Your task to perform on an android device: clear all cookies in the chrome app Image 0: 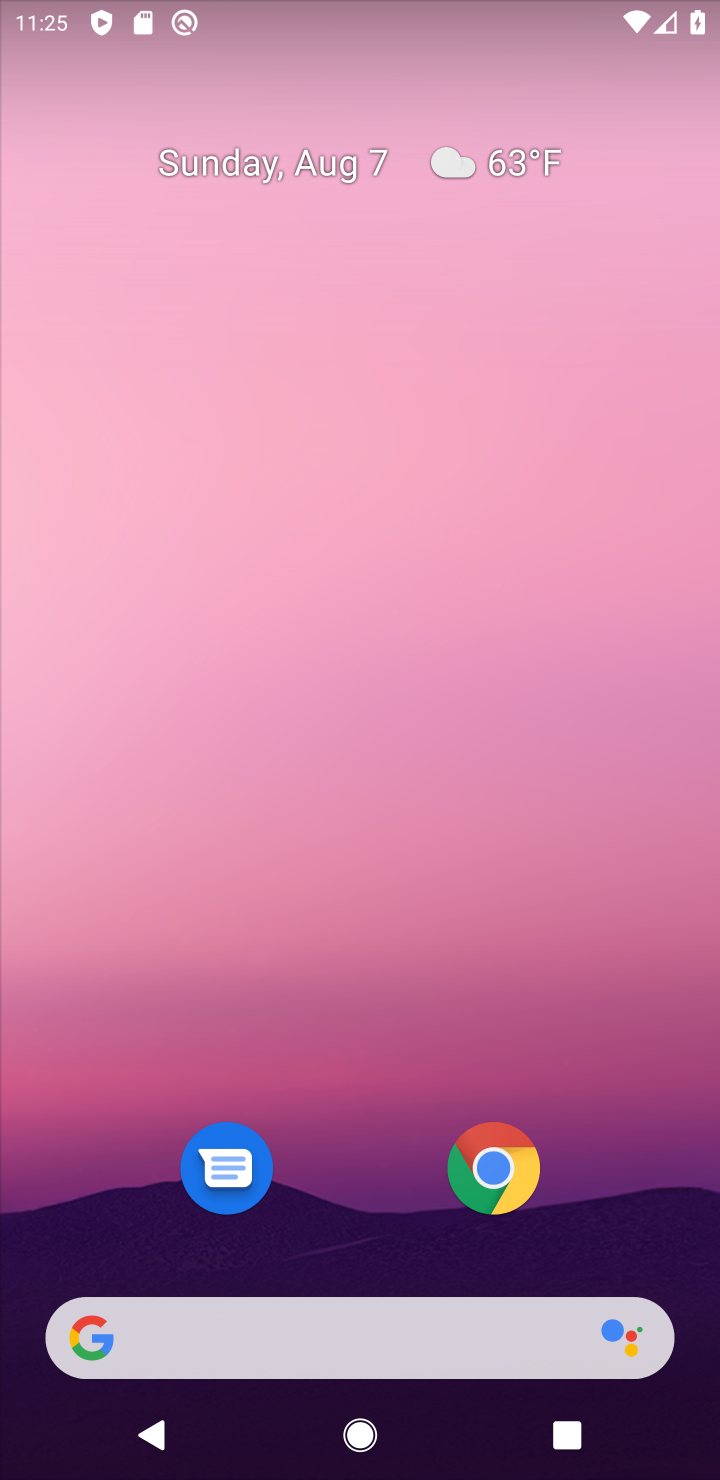
Step 0: click (483, 1176)
Your task to perform on an android device: clear all cookies in the chrome app Image 1: 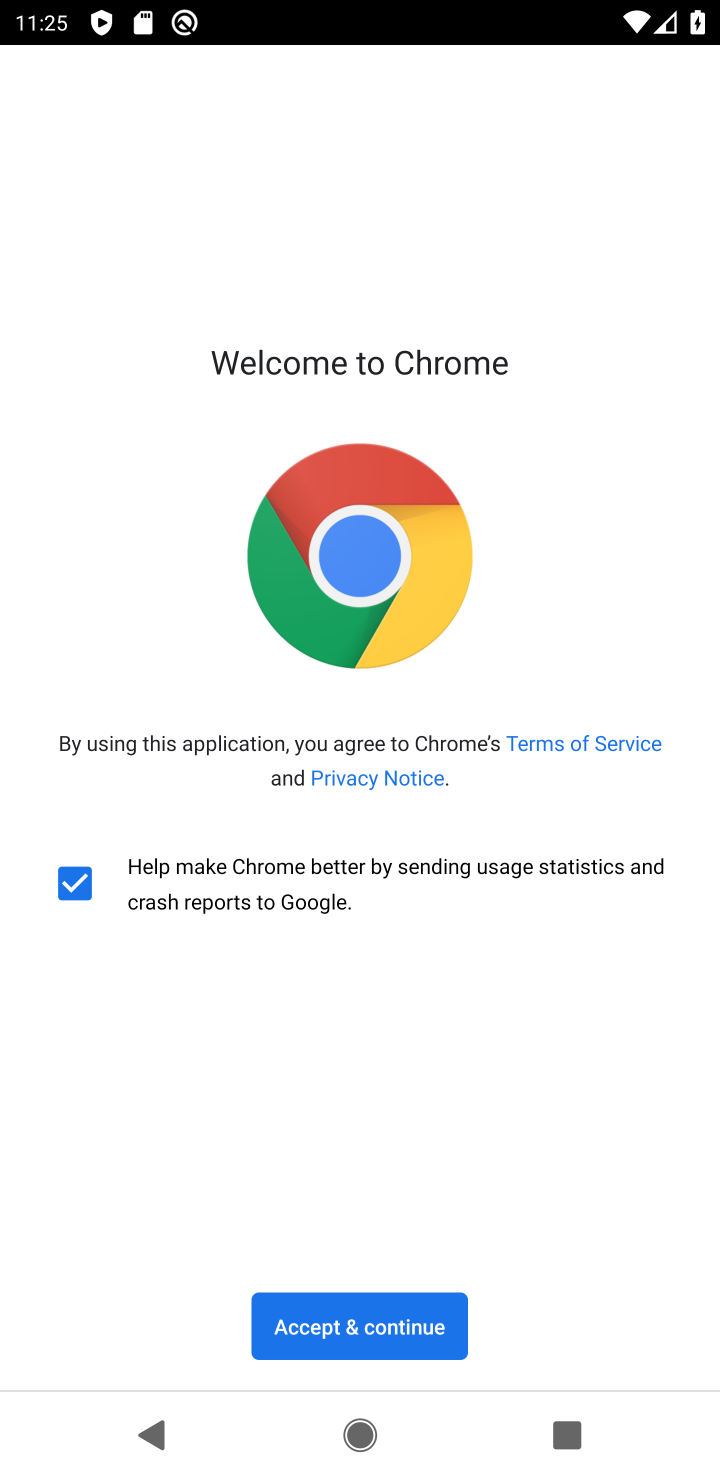
Step 1: click (350, 1317)
Your task to perform on an android device: clear all cookies in the chrome app Image 2: 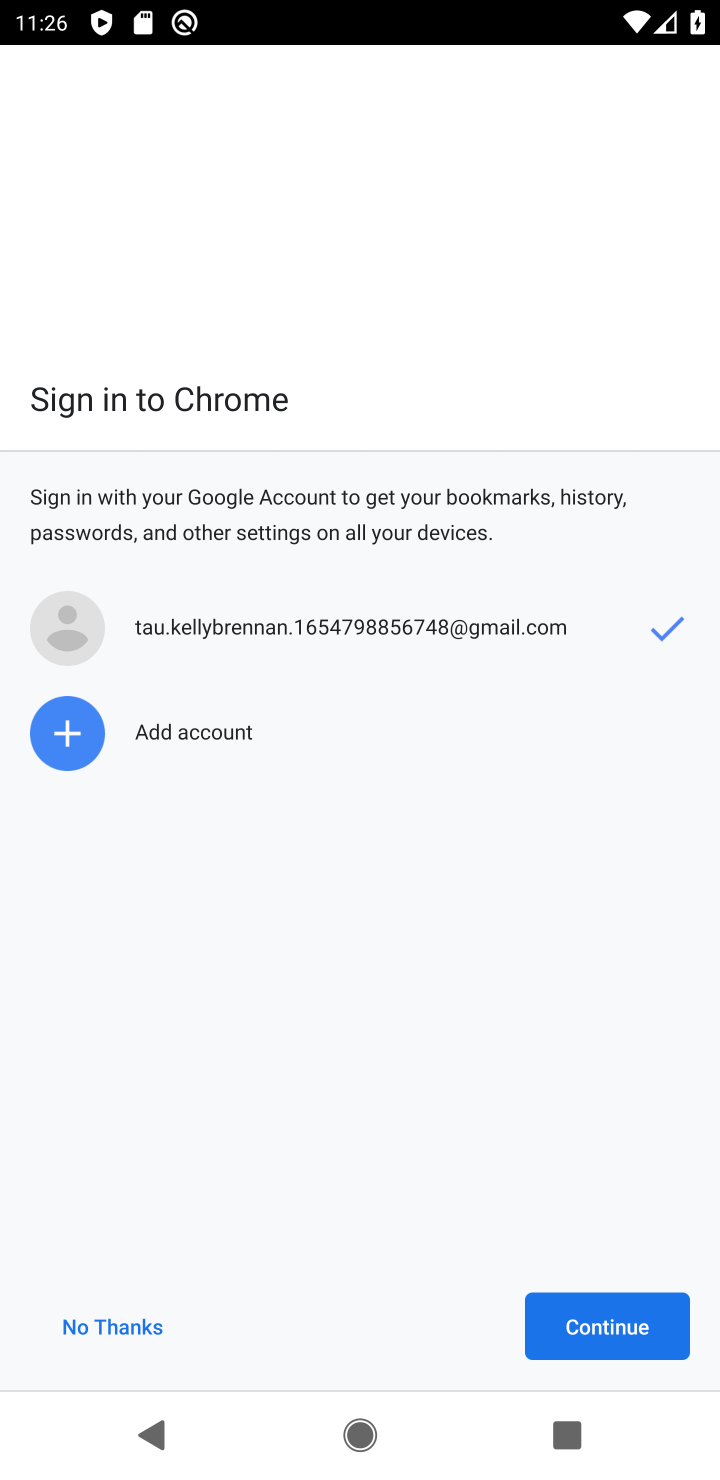
Step 2: click (604, 1335)
Your task to perform on an android device: clear all cookies in the chrome app Image 3: 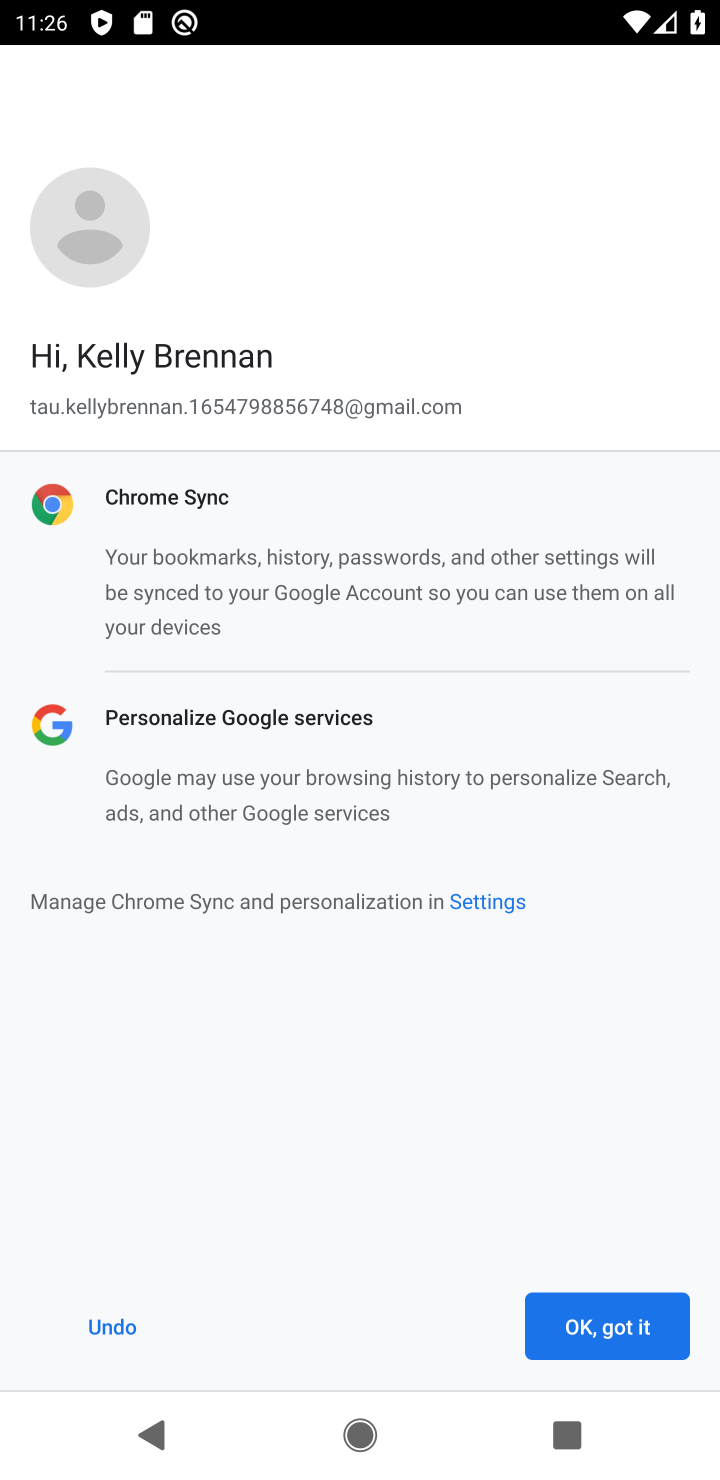
Step 3: click (604, 1335)
Your task to perform on an android device: clear all cookies in the chrome app Image 4: 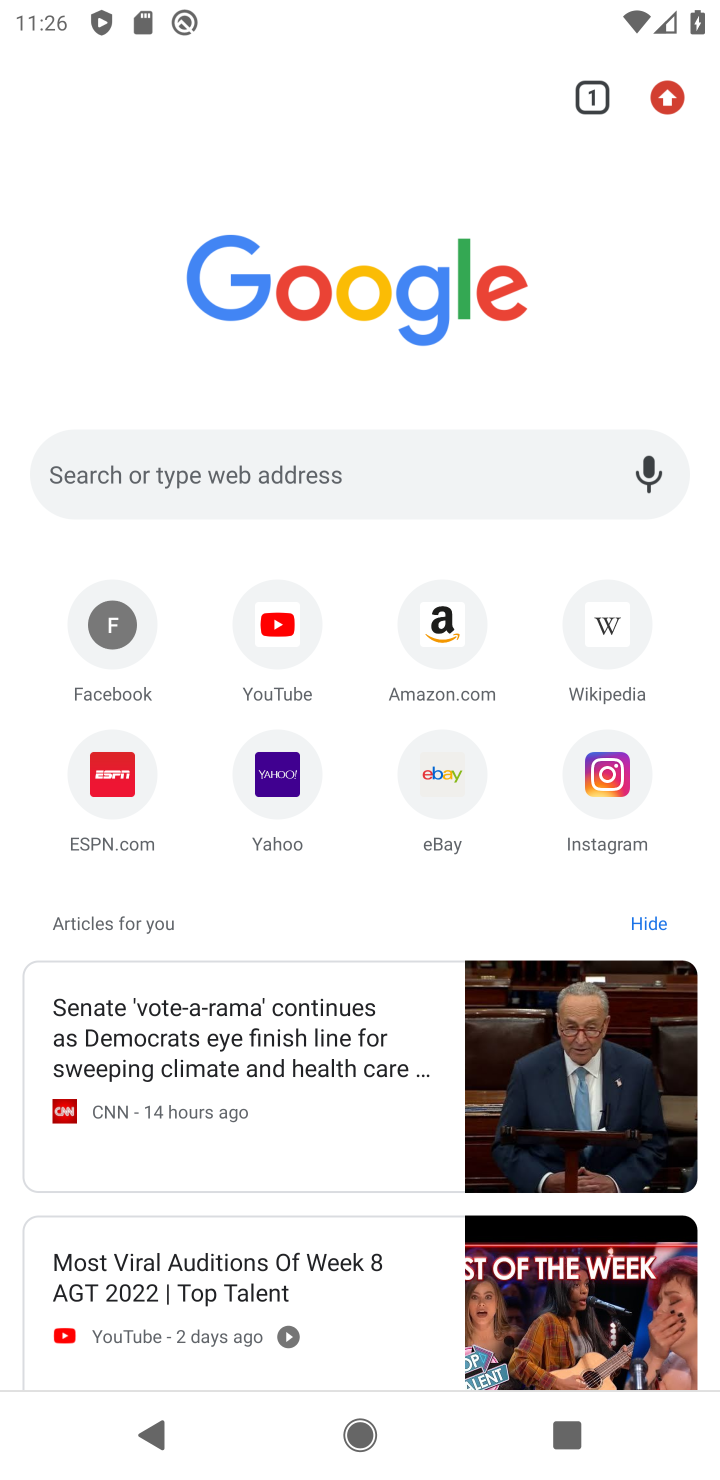
Step 4: drag from (673, 103) to (299, 913)
Your task to perform on an android device: clear all cookies in the chrome app Image 5: 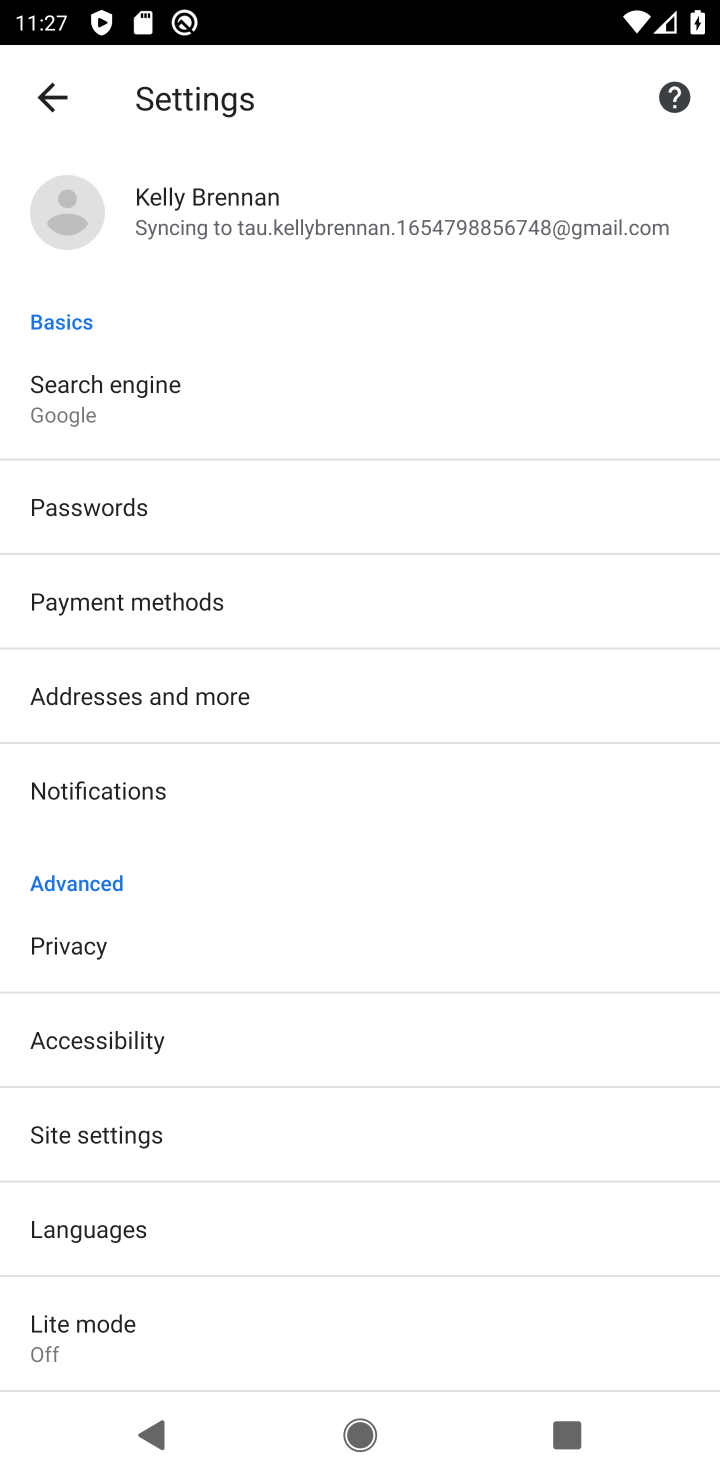
Step 5: drag from (417, 1119) to (539, 17)
Your task to perform on an android device: clear all cookies in the chrome app Image 6: 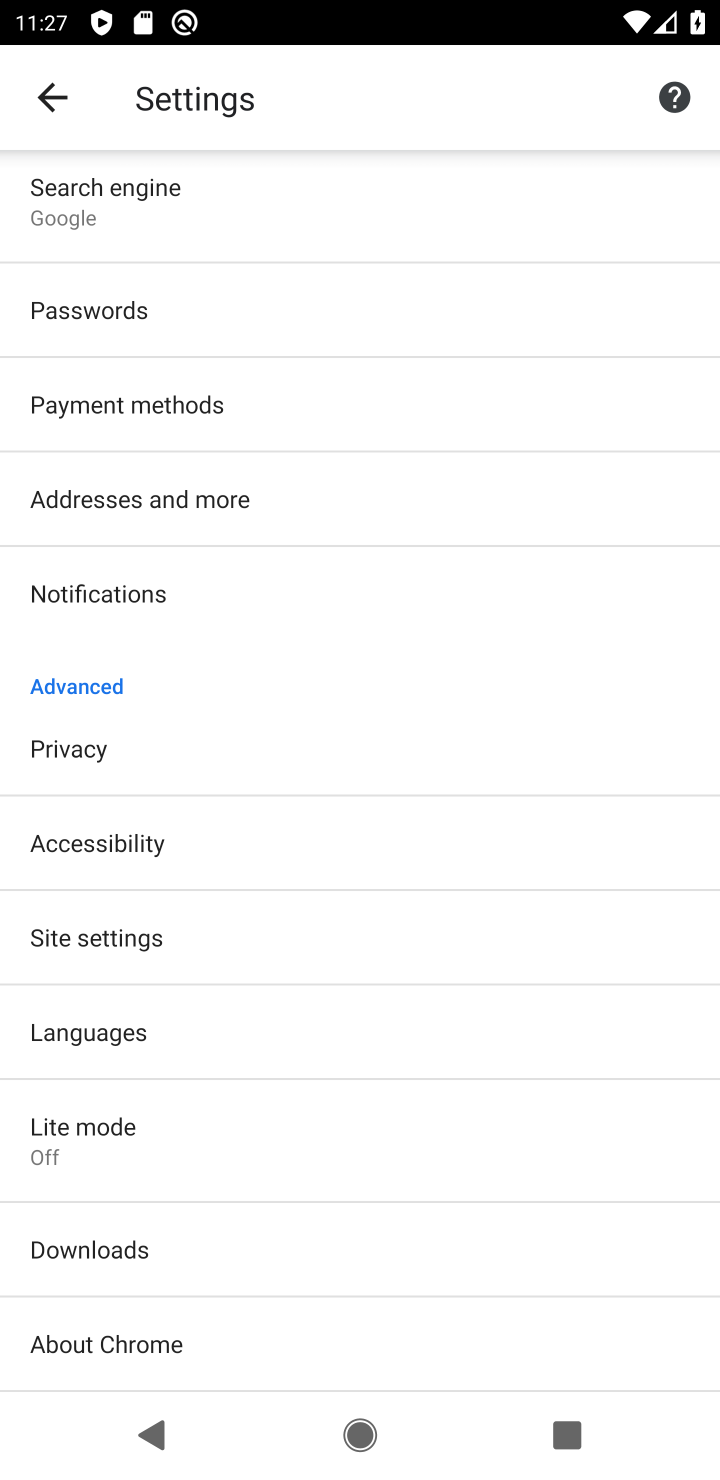
Step 6: click (84, 742)
Your task to perform on an android device: clear all cookies in the chrome app Image 7: 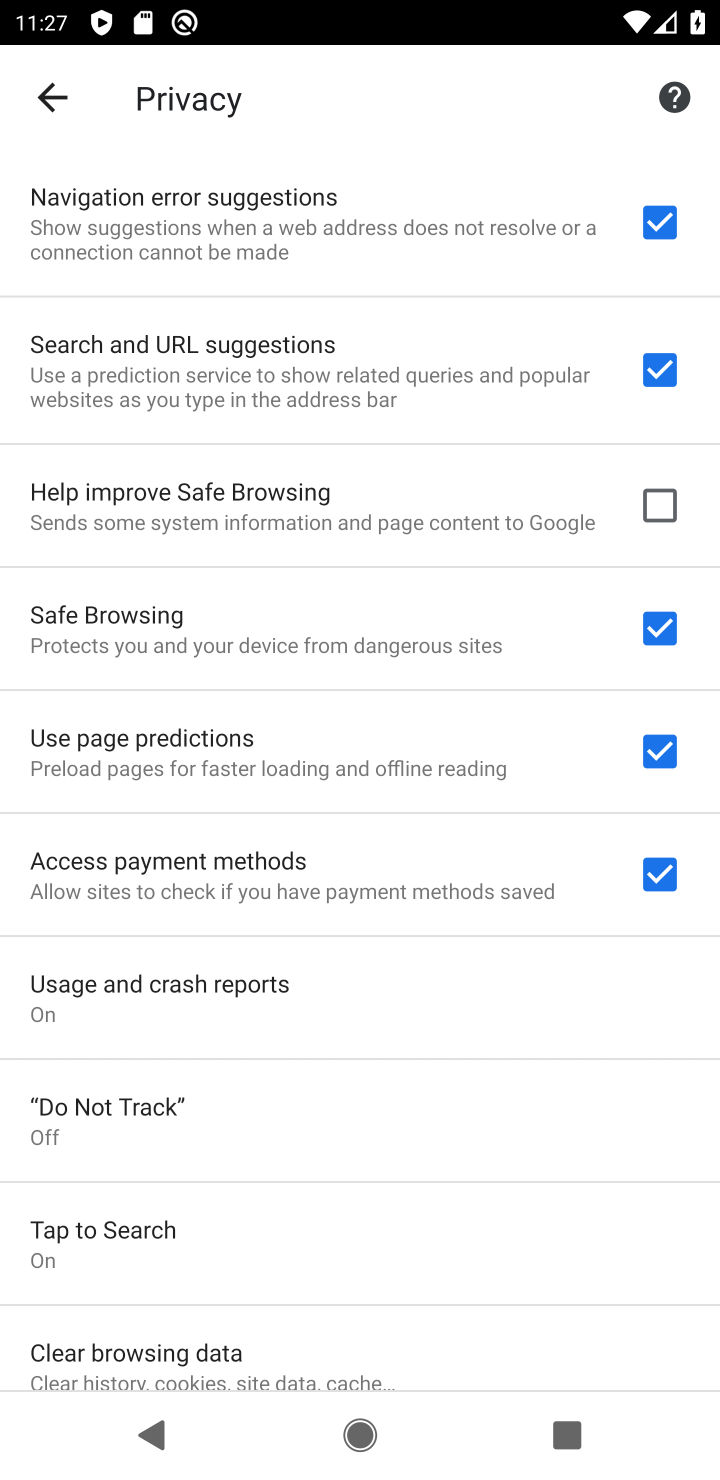
Step 7: click (192, 1347)
Your task to perform on an android device: clear all cookies in the chrome app Image 8: 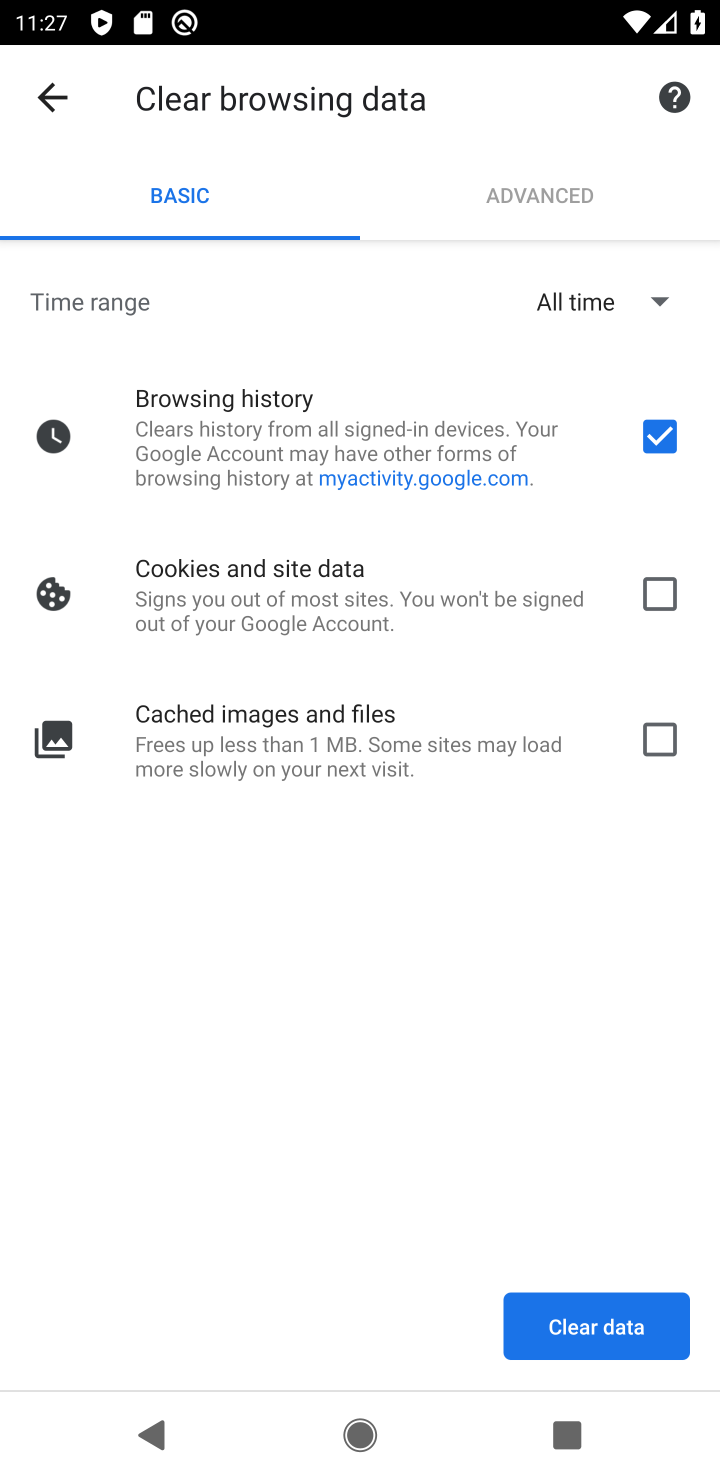
Step 8: click (664, 600)
Your task to perform on an android device: clear all cookies in the chrome app Image 9: 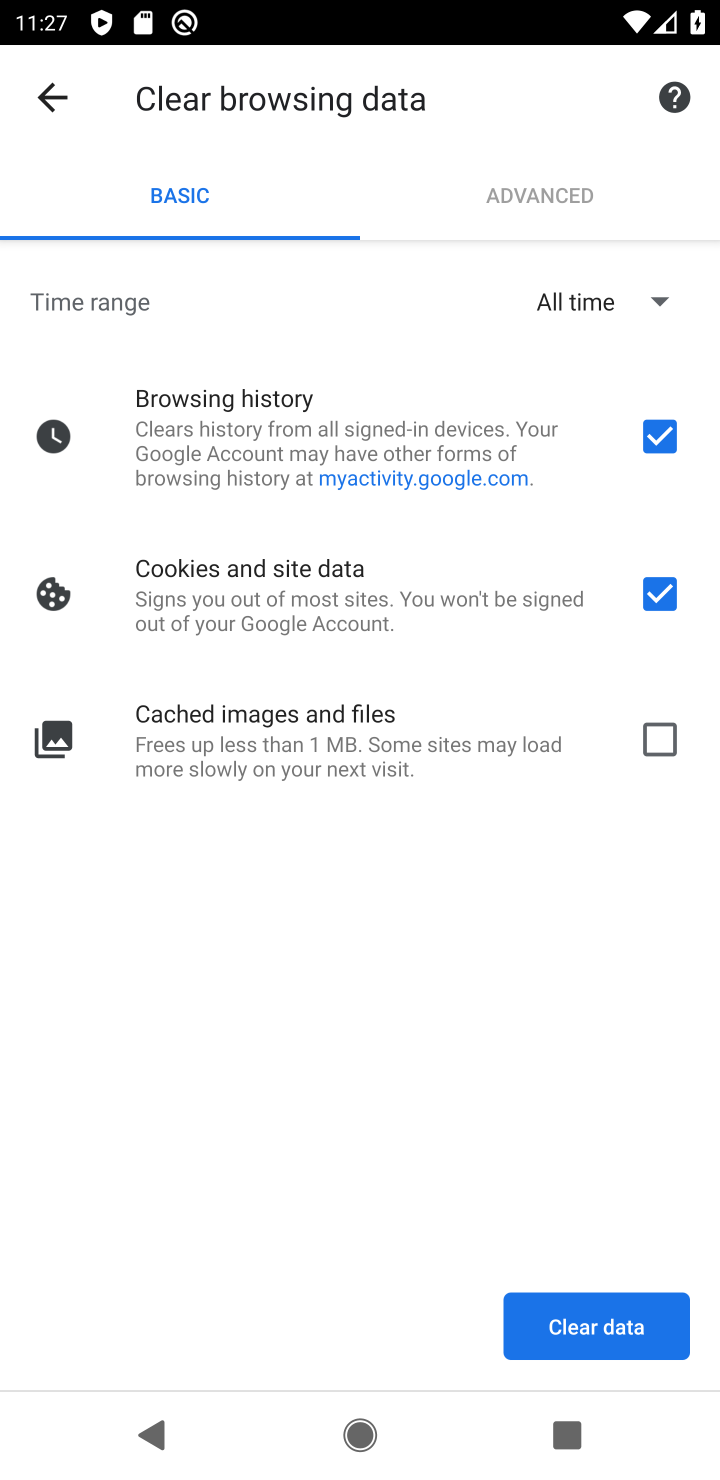
Step 9: click (644, 581)
Your task to perform on an android device: clear all cookies in the chrome app Image 10: 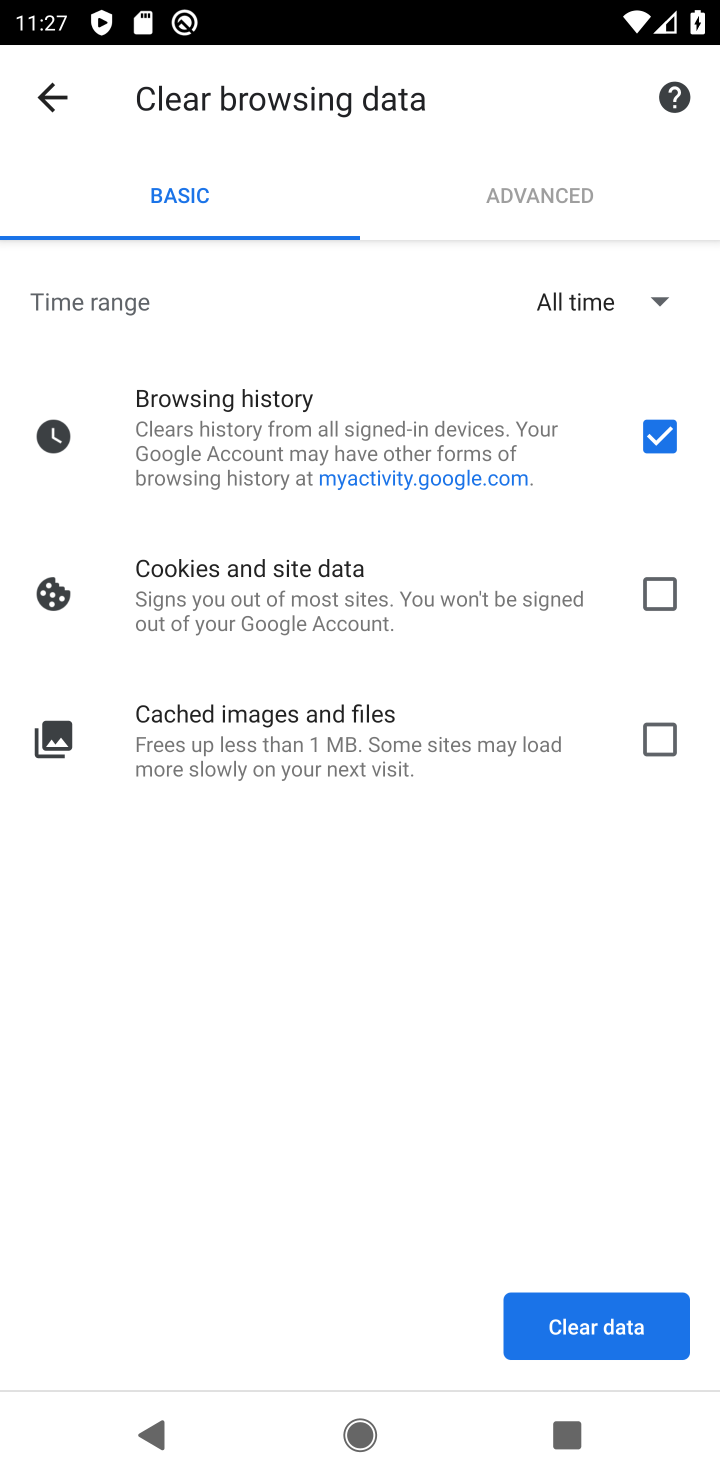
Step 10: click (668, 425)
Your task to perform on an android device: clear all cookies in the chrome app Image 11: 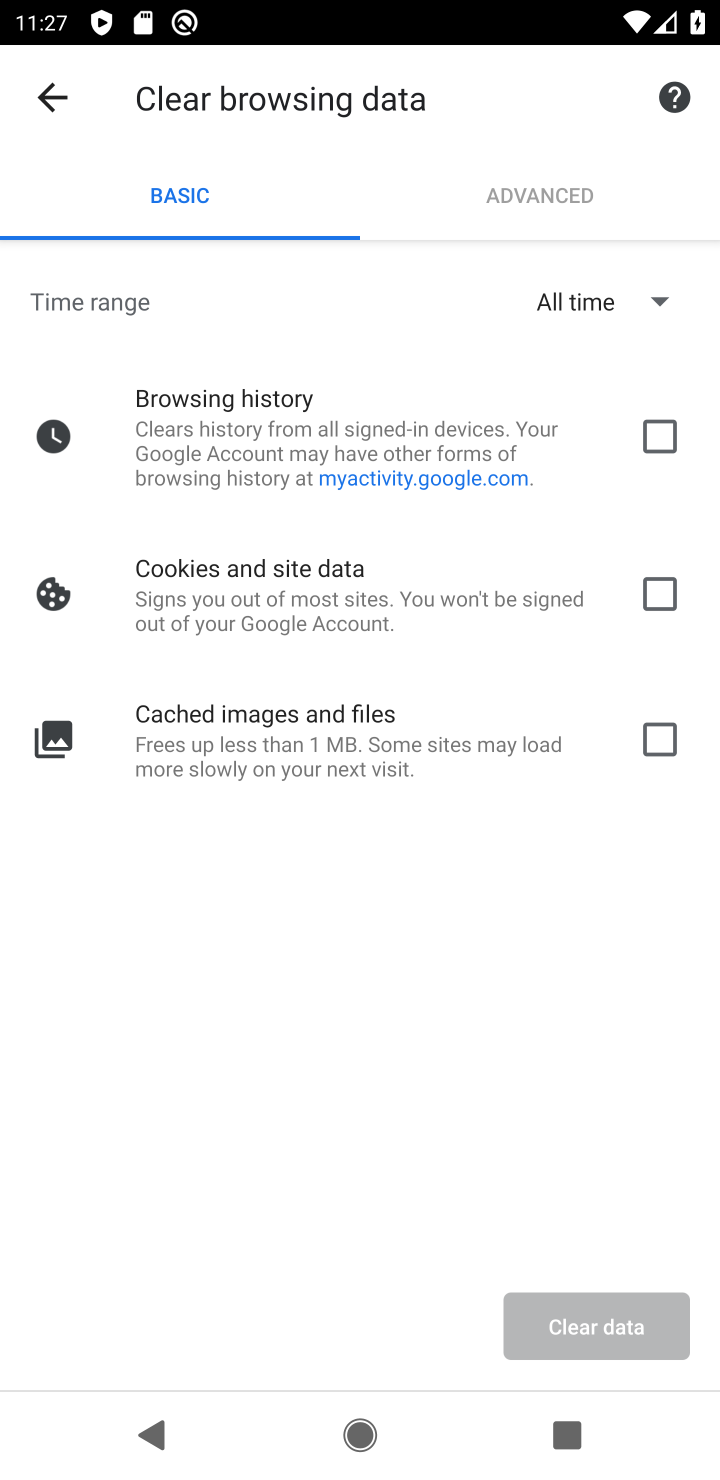
Step 11: click (656, 617)
Your task to perform on an android device: clear all cookies in the chrome app Image 12: 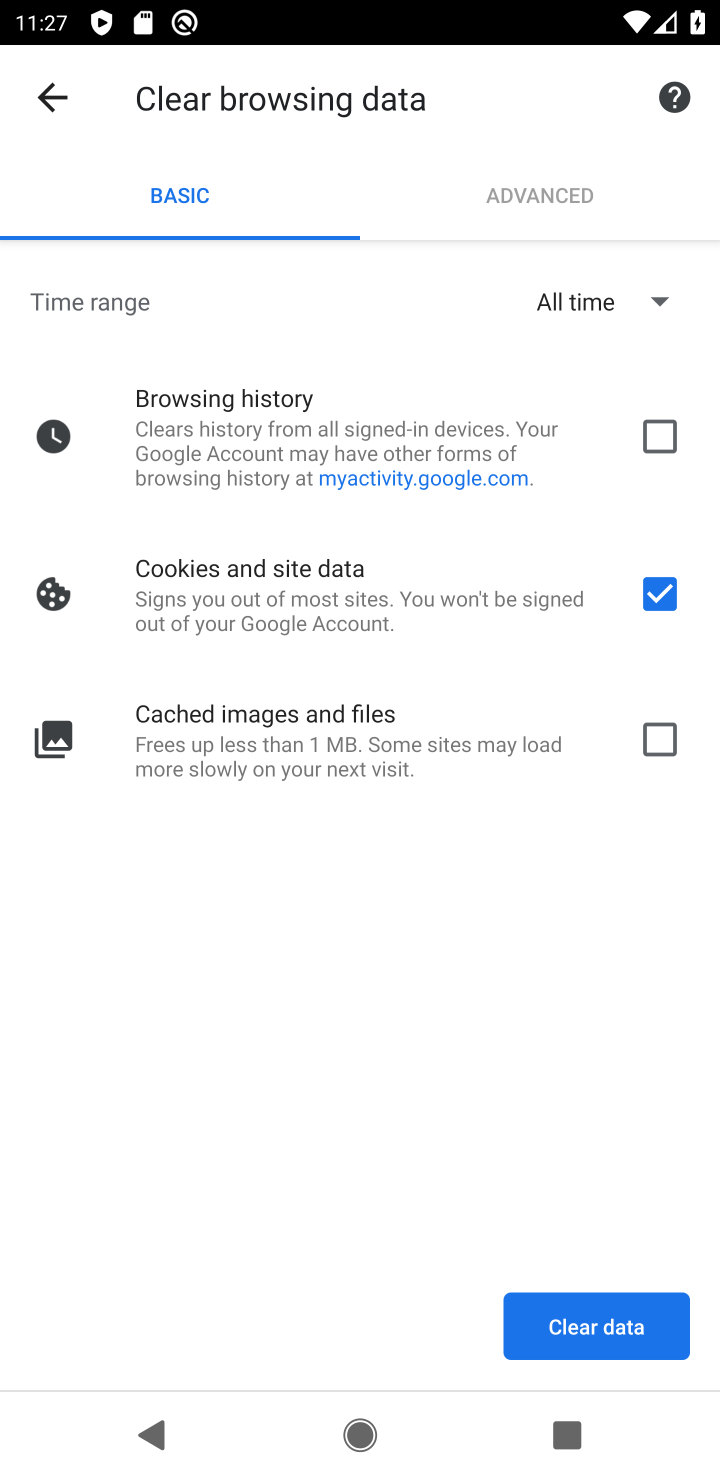
Step 12: click (564, 1331)
Your task to perform on an android device: clear all cookies in the chrome app Image 13: 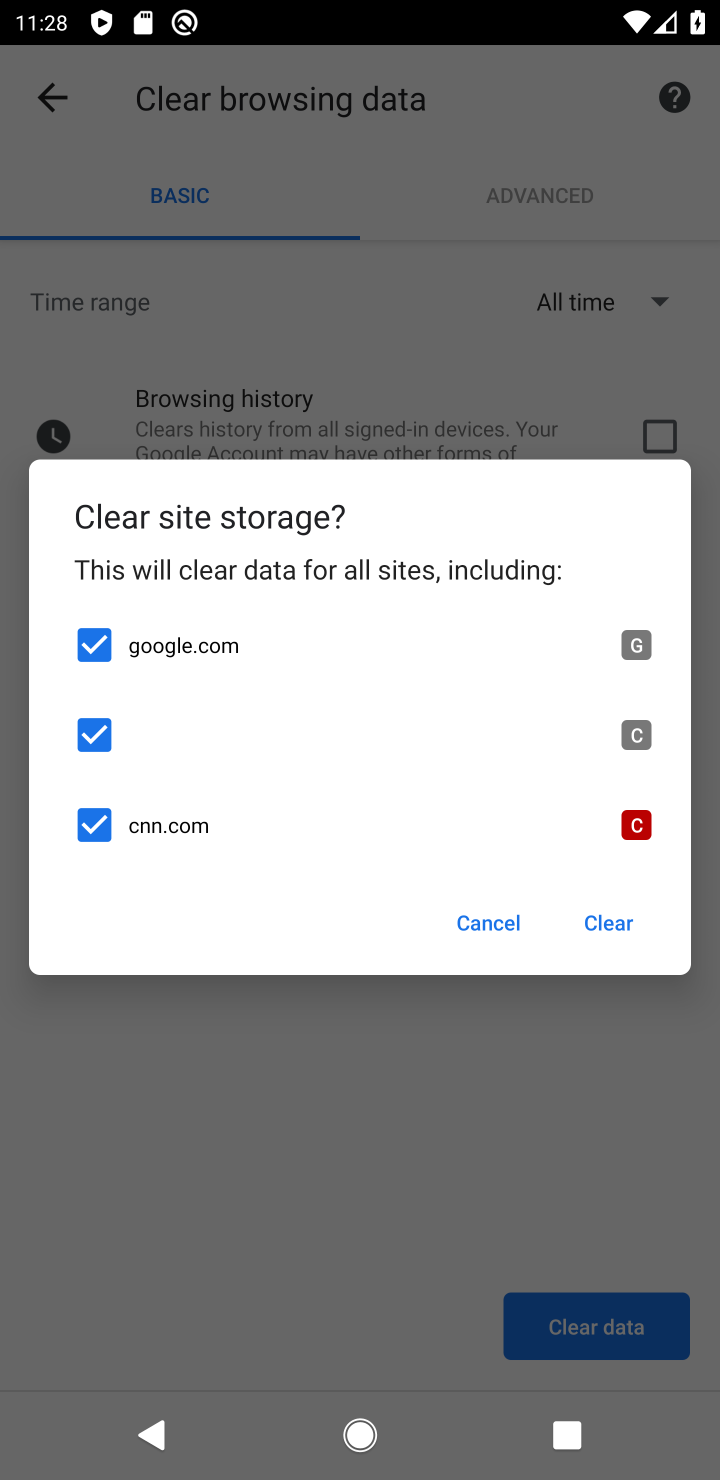
Step 13: click (606, 927)
Your task to perform on an android device: clear all cookies in the chrome app Image 14: 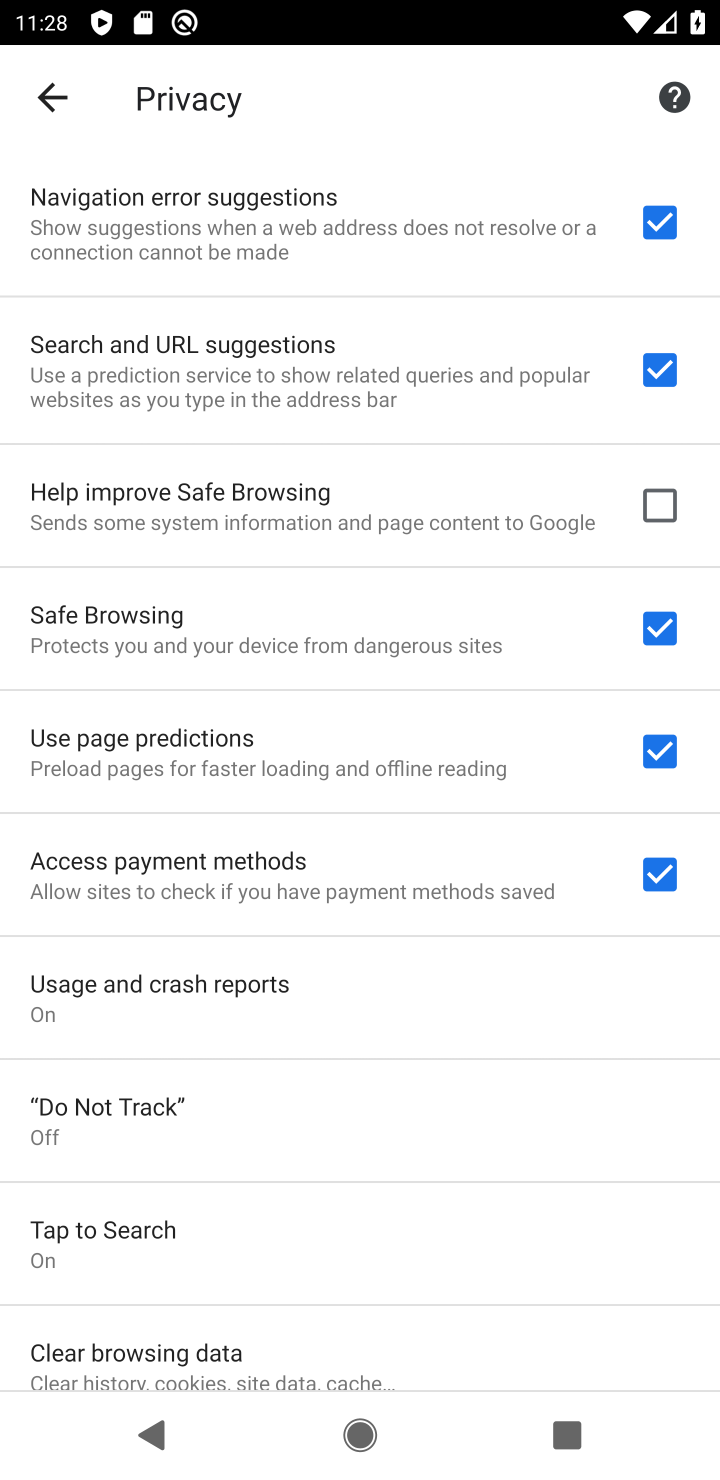
Step 14: task complete